Your task to perform on an android device: Go to notification settings Image 0: 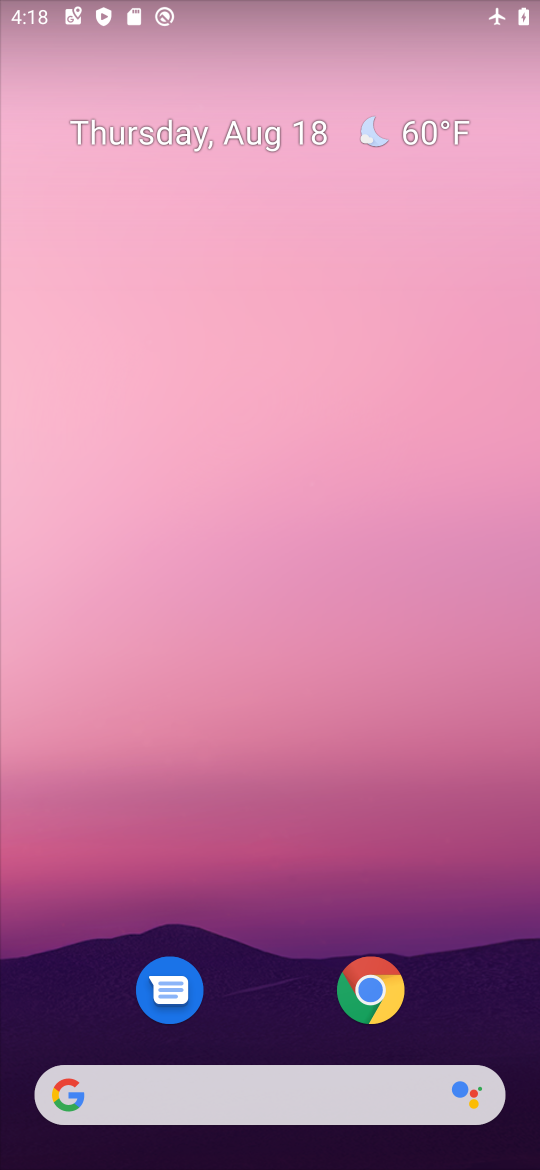
Step 0: drag from (259, 845) to (356, 102)
Your task to perform on an android device: Go to notification settings Image 1: 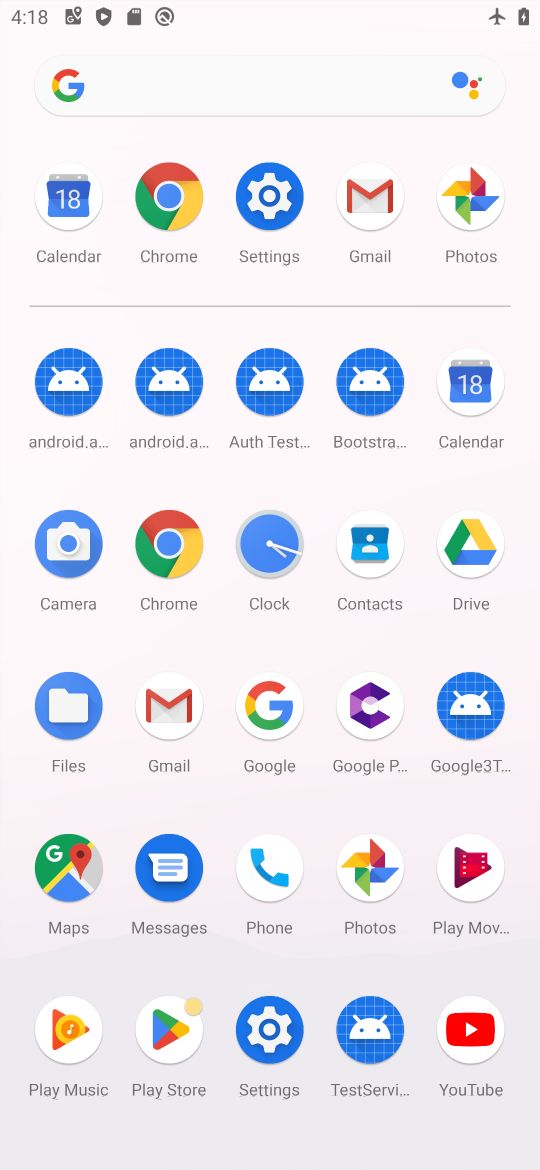
Step 1: click (260, 1033)
Your task to perform on an android device: Go to notification settings Image 2: 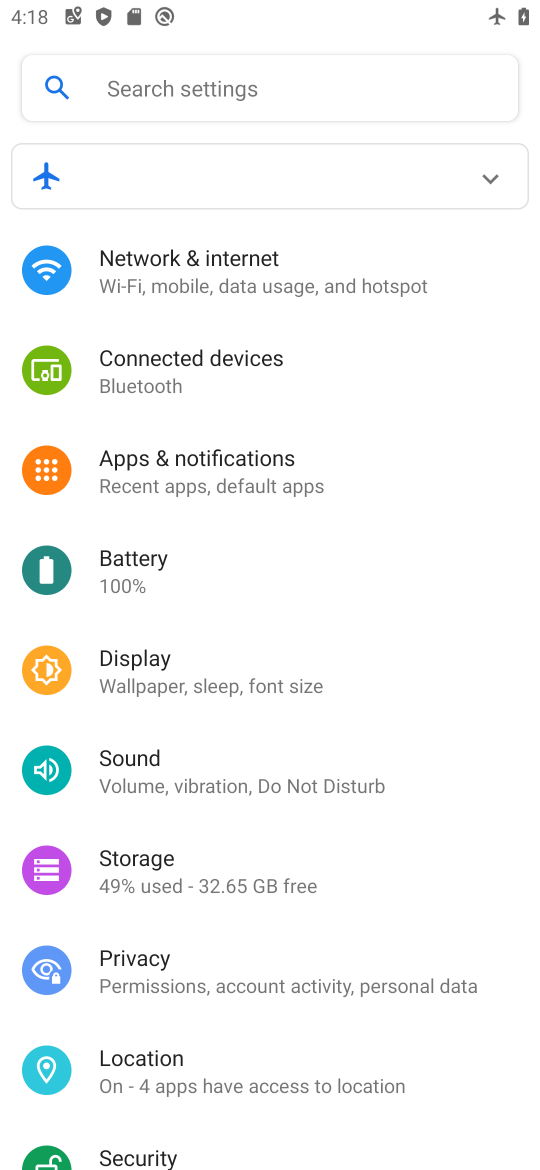
Step 2: click (204, 474)
Your task to perform on an android device: Go to notification settings Image 3: 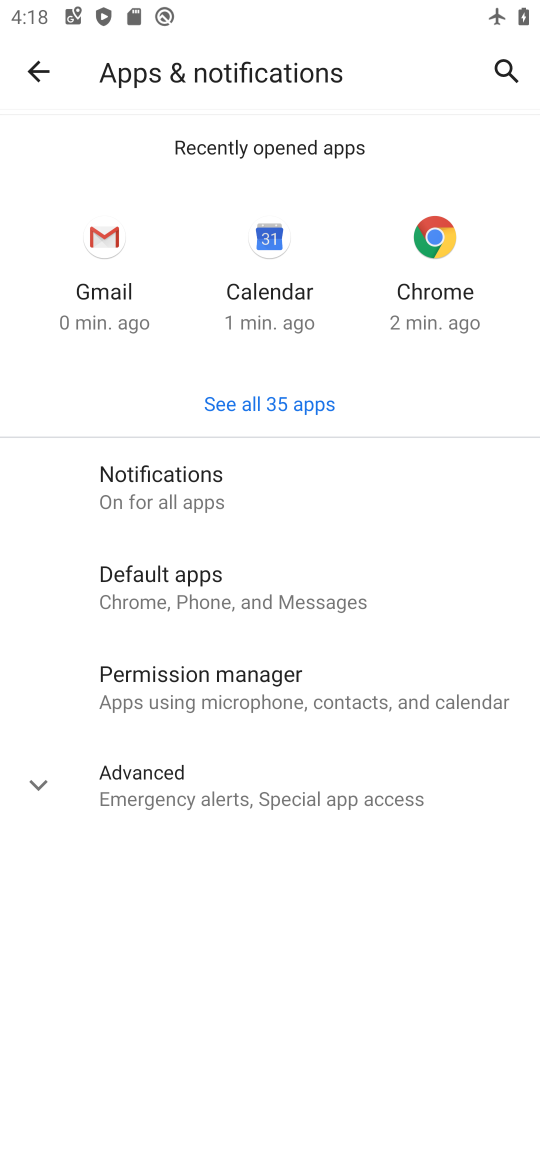
Step 3: click (194, 470)
Your task to perform on an android device: Go to notification settings Image 4: 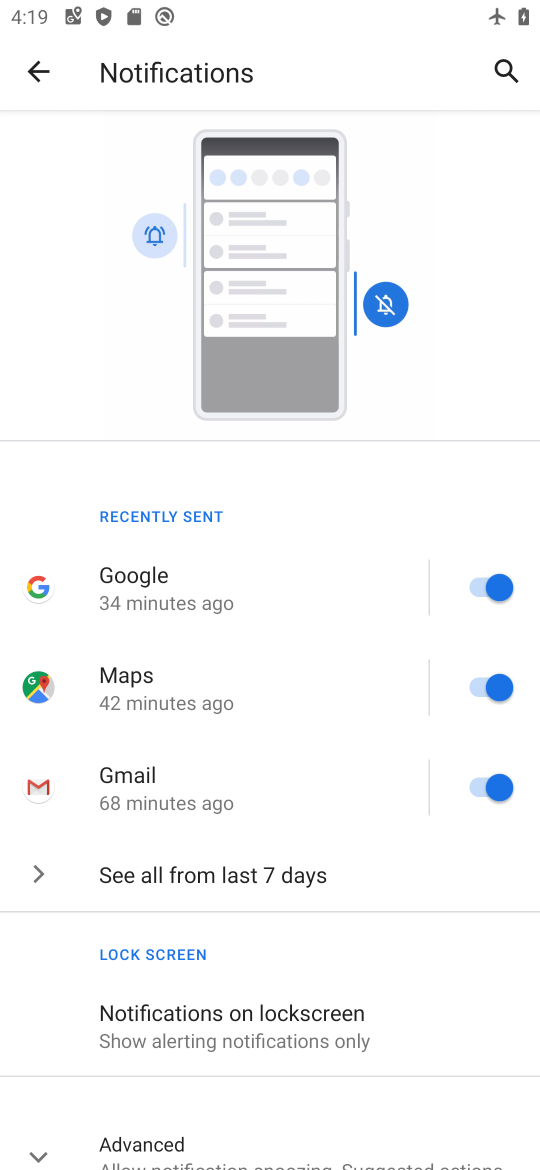
Step 4: task complete